Your task to perform on an android device: create a new album in the google photos Image 0: 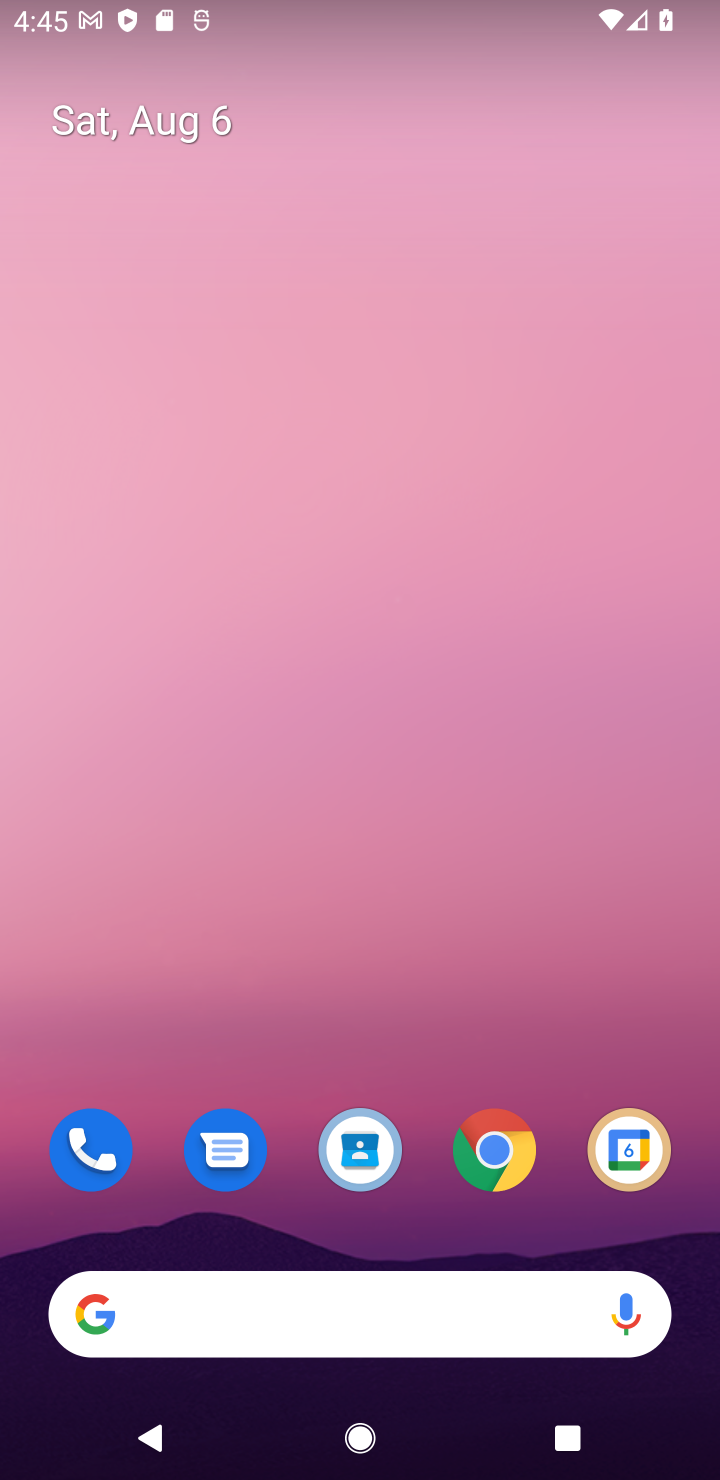
Step 0: drag from (332, 1046) to (331, 142)
Your task to perform on an android device: create a new album in the google photos Image 1: 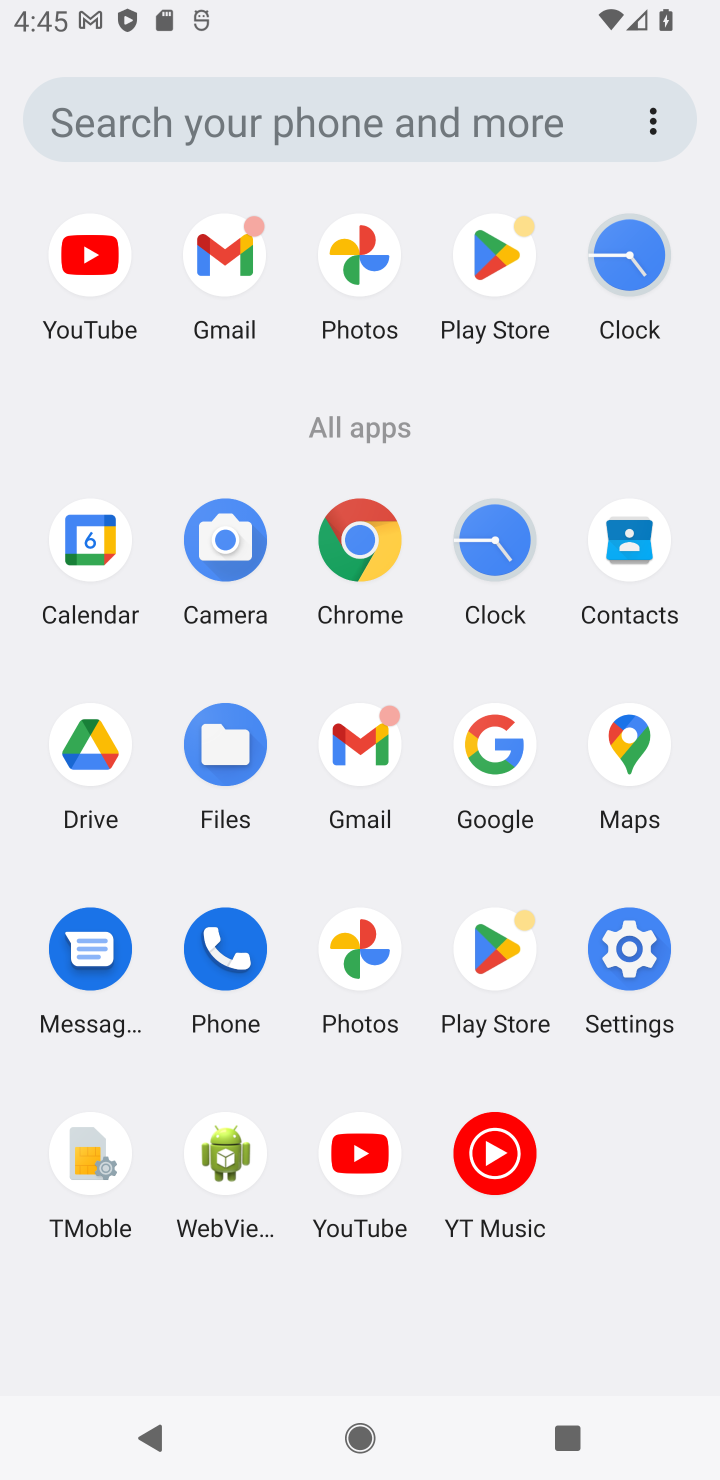
Step 1: click (358, 946)
Your task to perform on an android device: create a new album in the google photos Image 2: 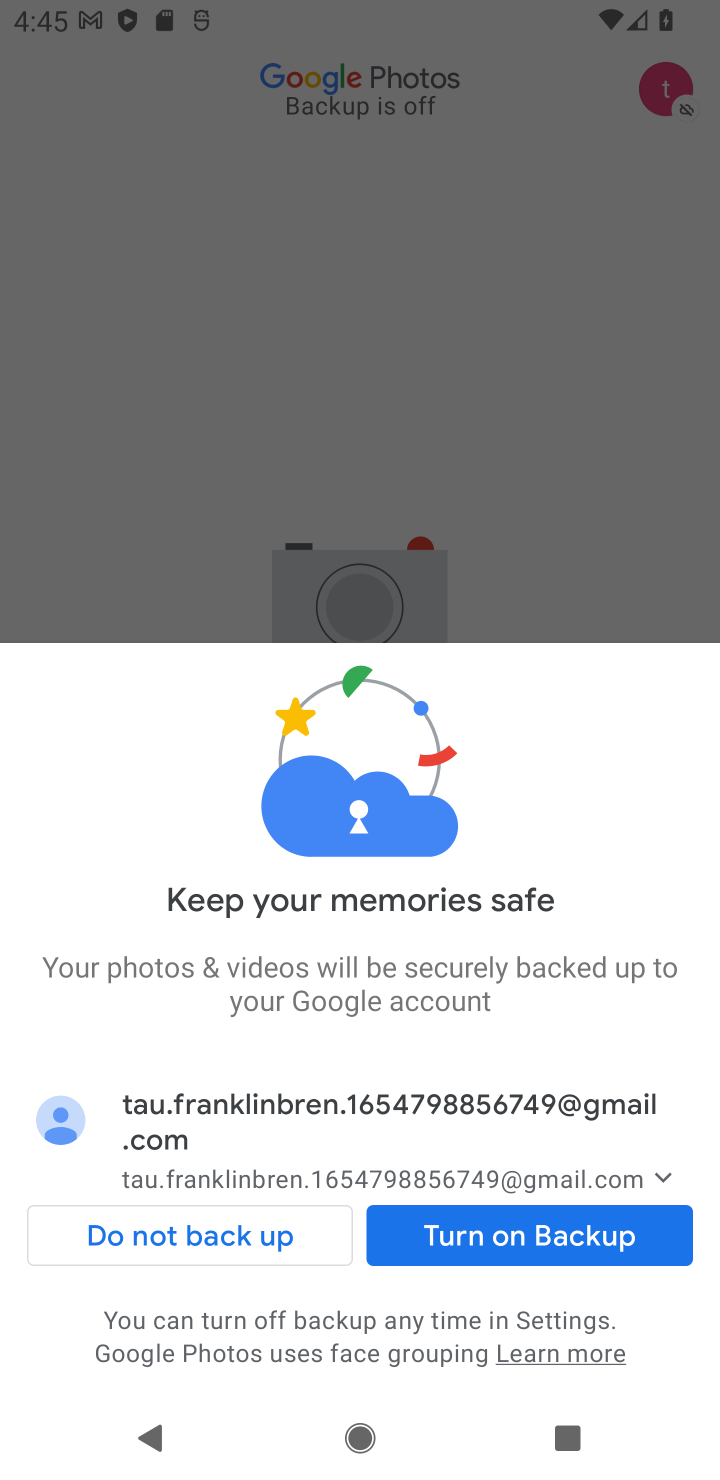
Step 2: click (297, 1233)
Your task to perform on an android device: create a new album in the google photos Image 3: 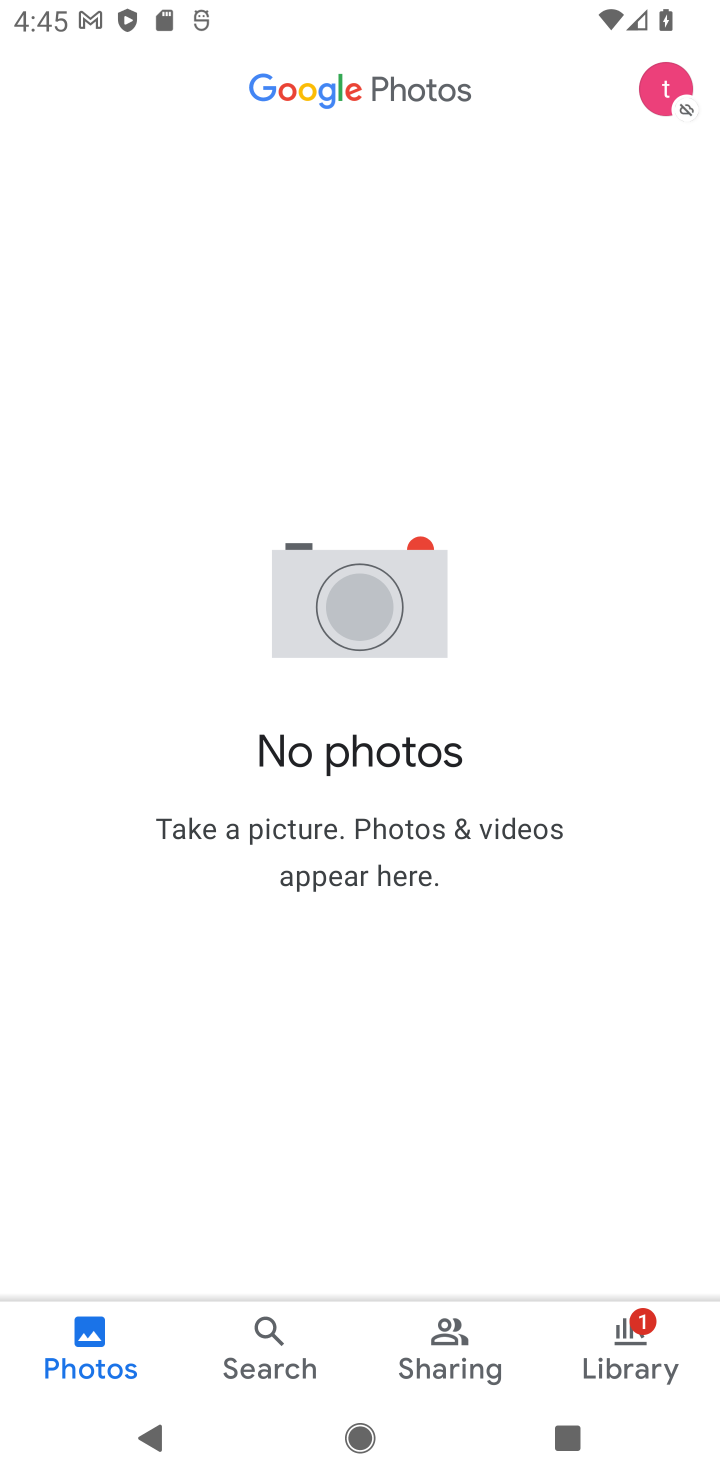
Step 3: click (639, 1328)
Your task to perform on an android device: create a new album in the google photos Image 4: 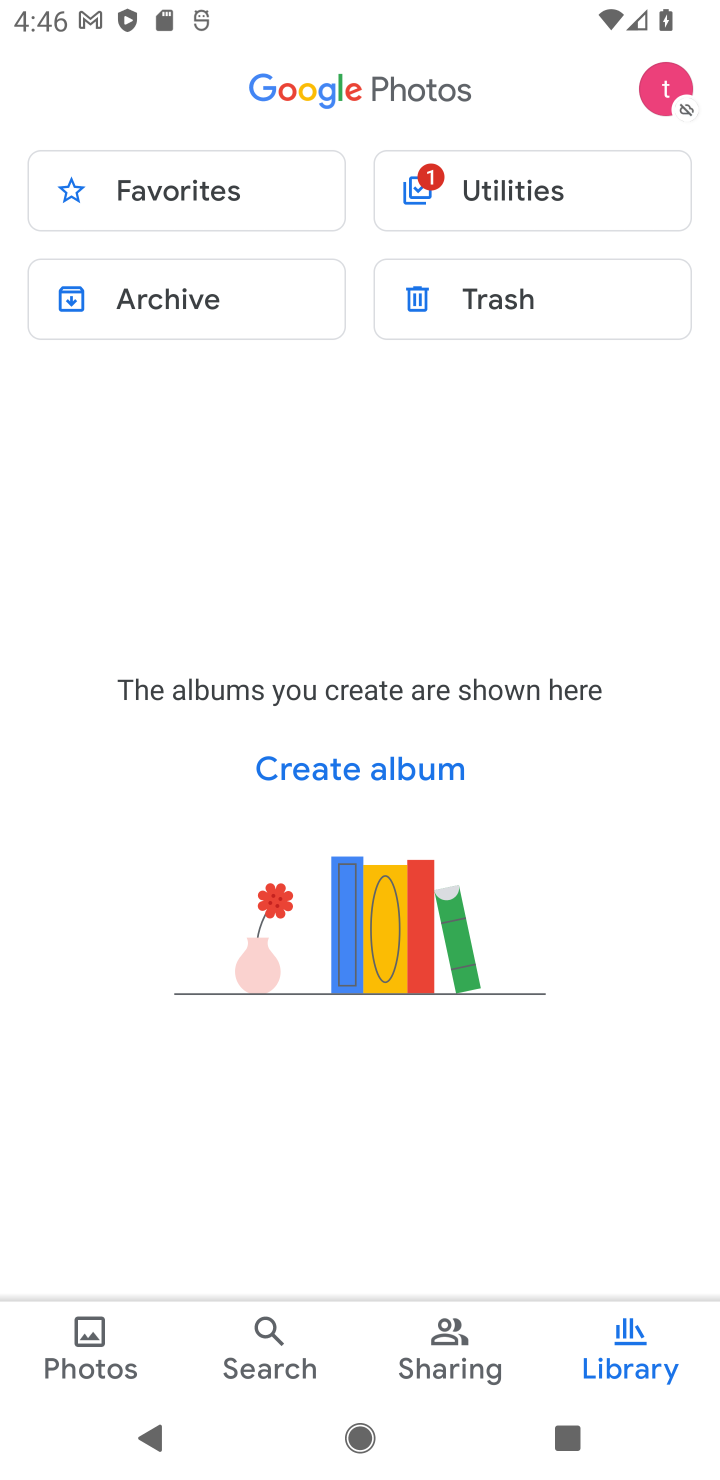
Step 4: click (347, 756)
Your task to perform on an android device: create a new album in the google photos Image 5: 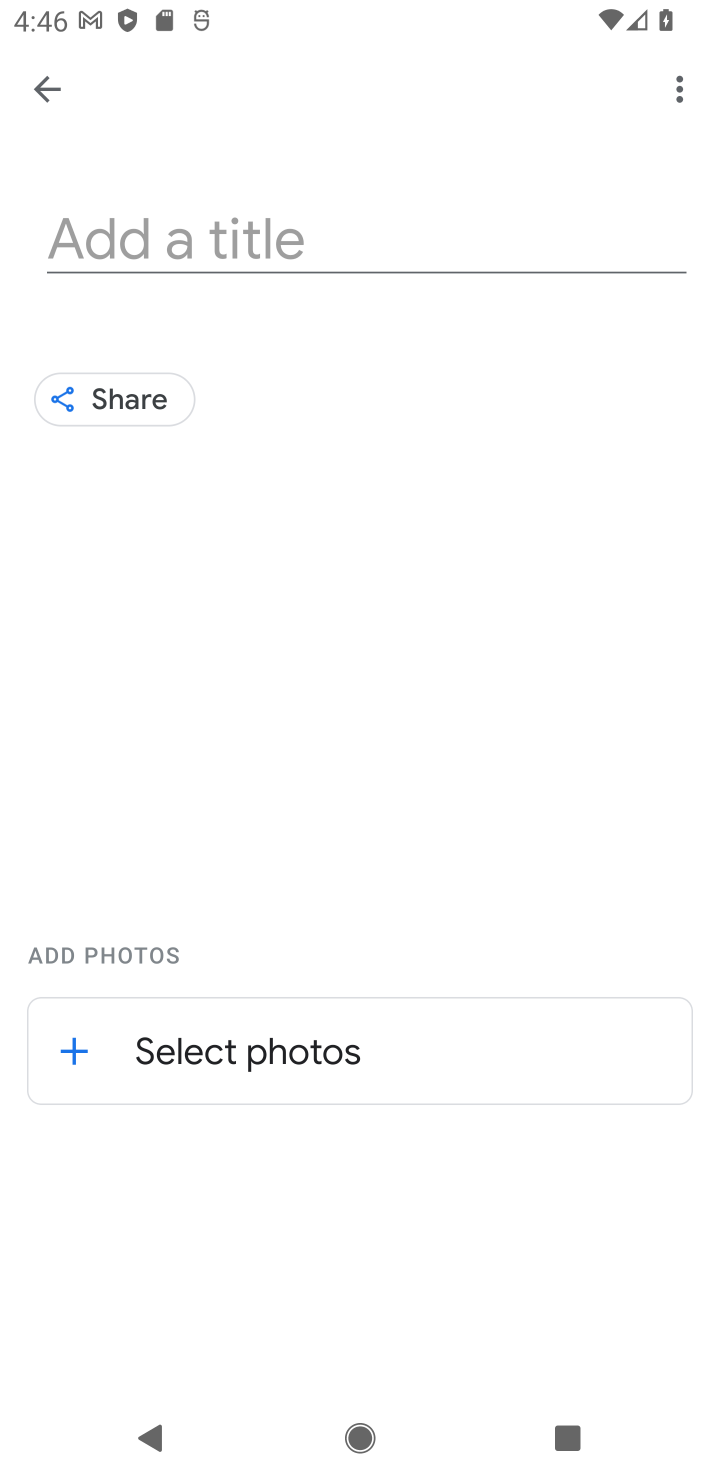
Step 5: click (245, 1047)
Your task to perform on an android device: create a new album in the google photos Image 6: 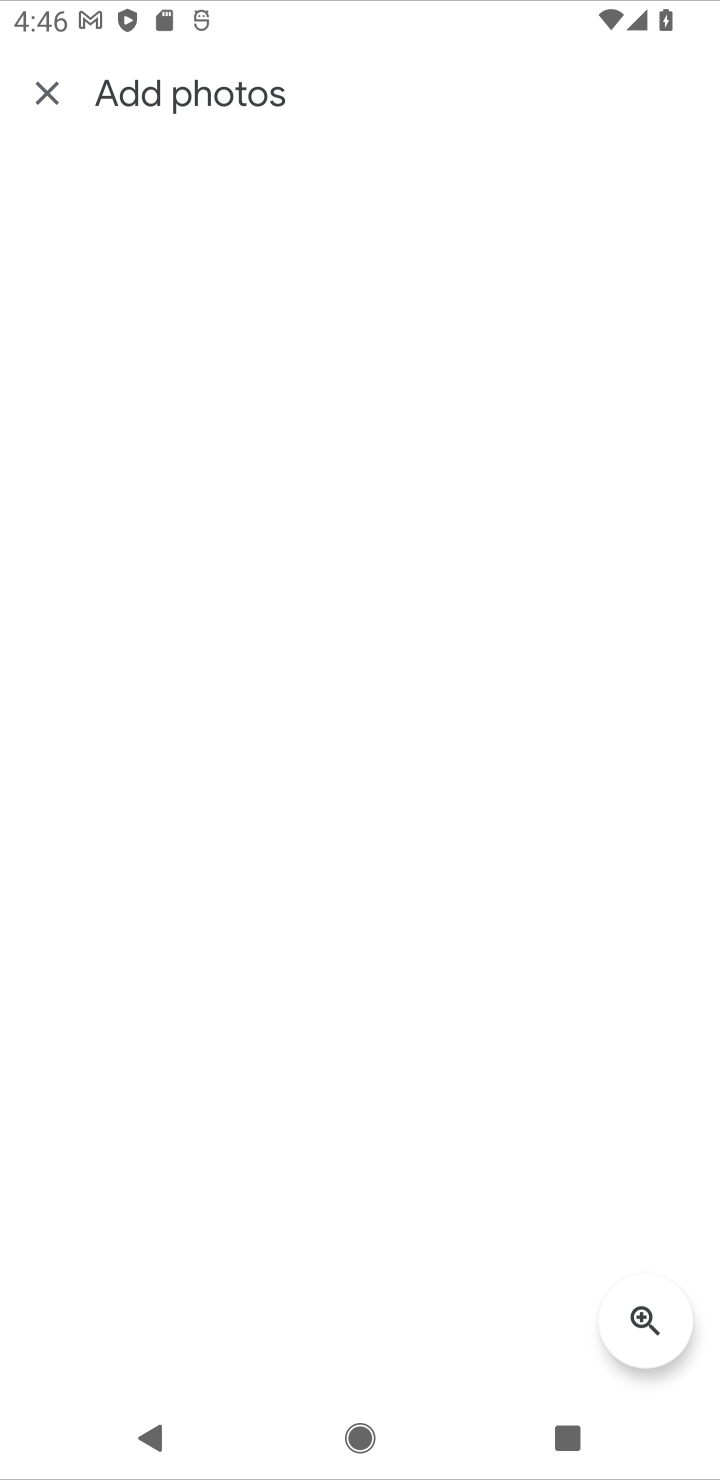
Step 6: click (245, 1047)
Your task to perform on an android device: create a new album in the google photos Image 7: 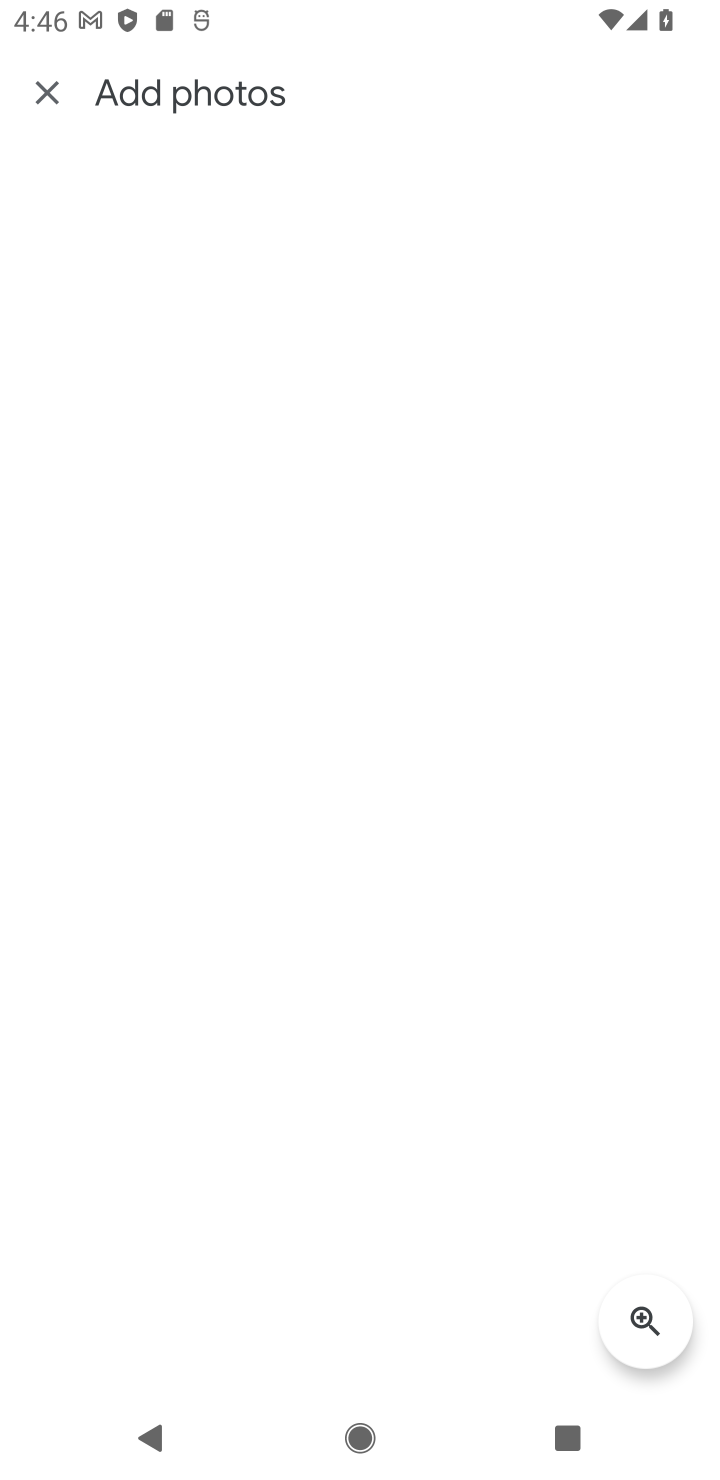
Step 7: task complete